Your task to perform on an android device: uninstall "Contacts" Image 0: 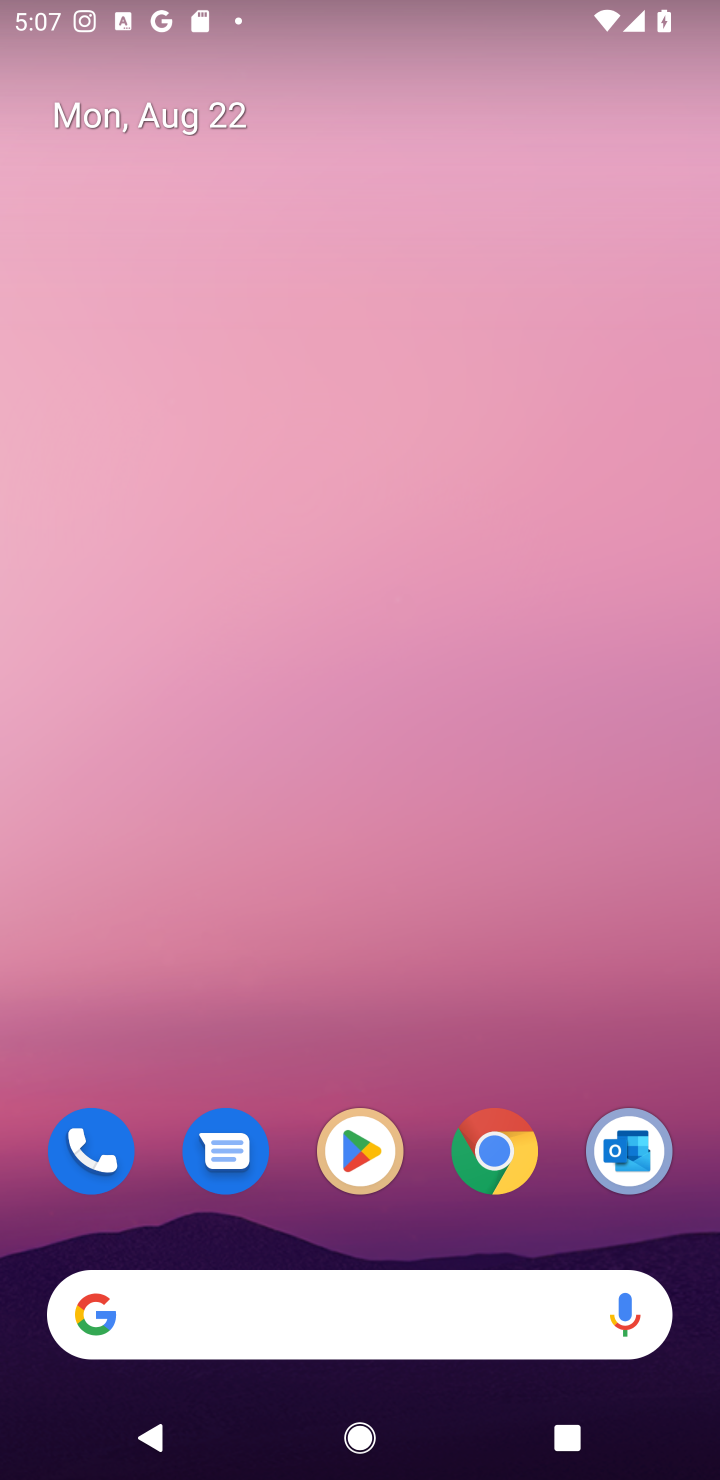
Step 0: press home button
Your task to perform on an android device: uninstall "Contacts" Image 1: 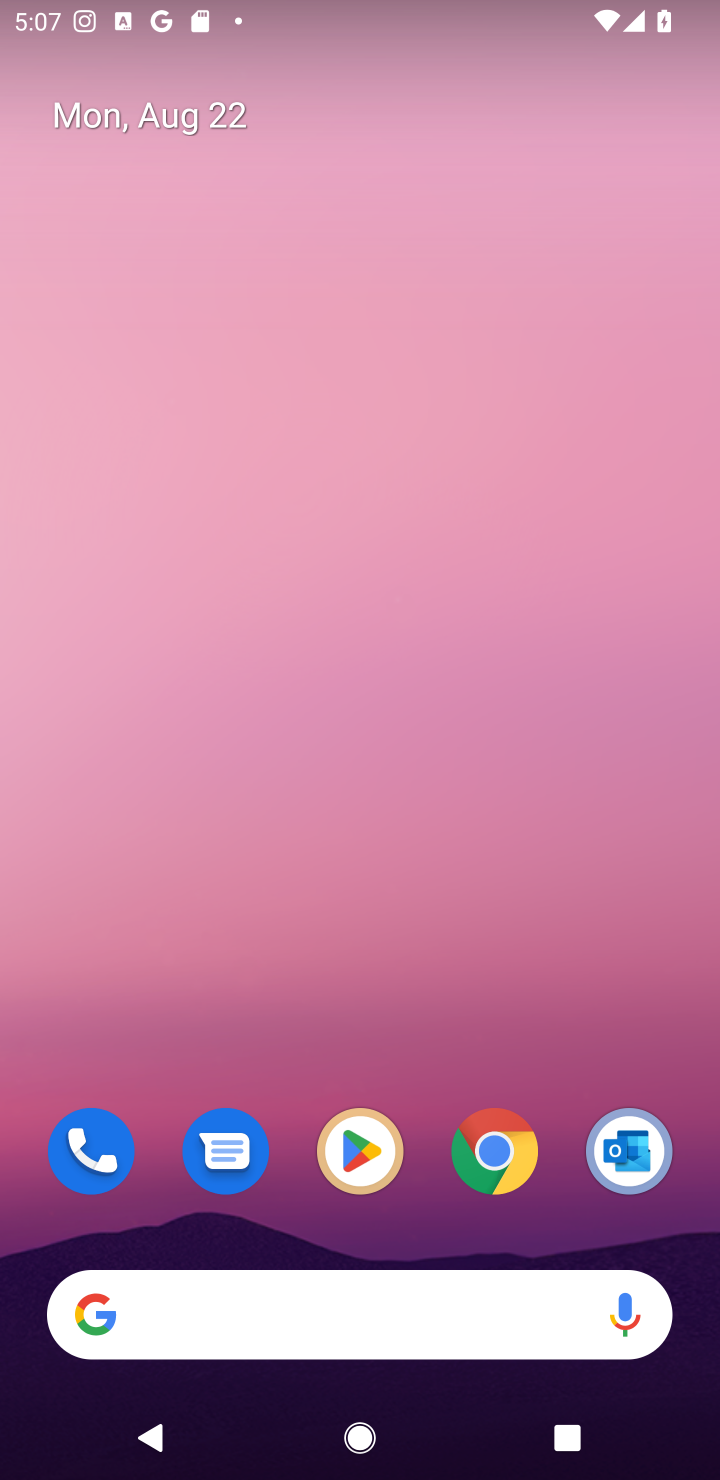
Step 1: click (348, 1143)
Your task to perform on an android device: uninstall "Contacts" Image 2: 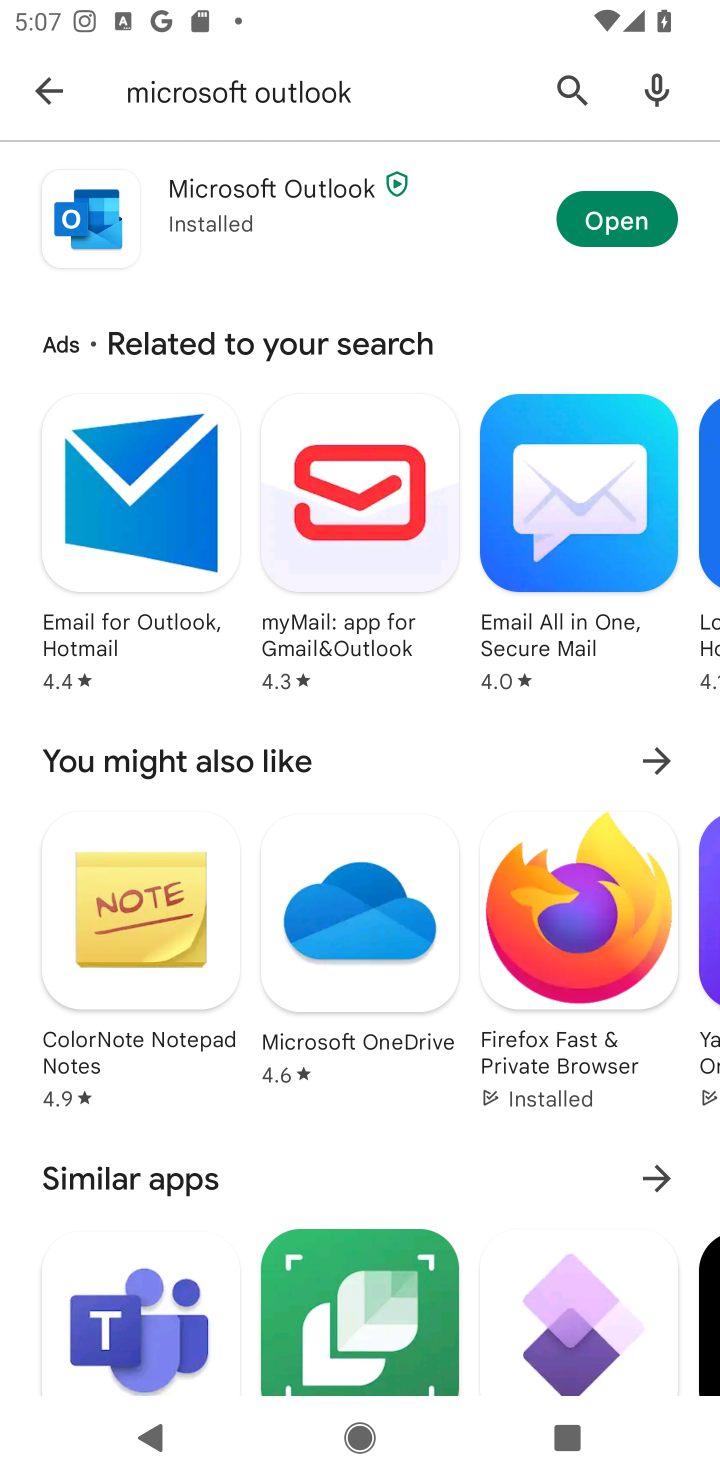
Step 2: click (578, 76)
Your task to perform on an android device: uninstall "Contacts" Image 3: 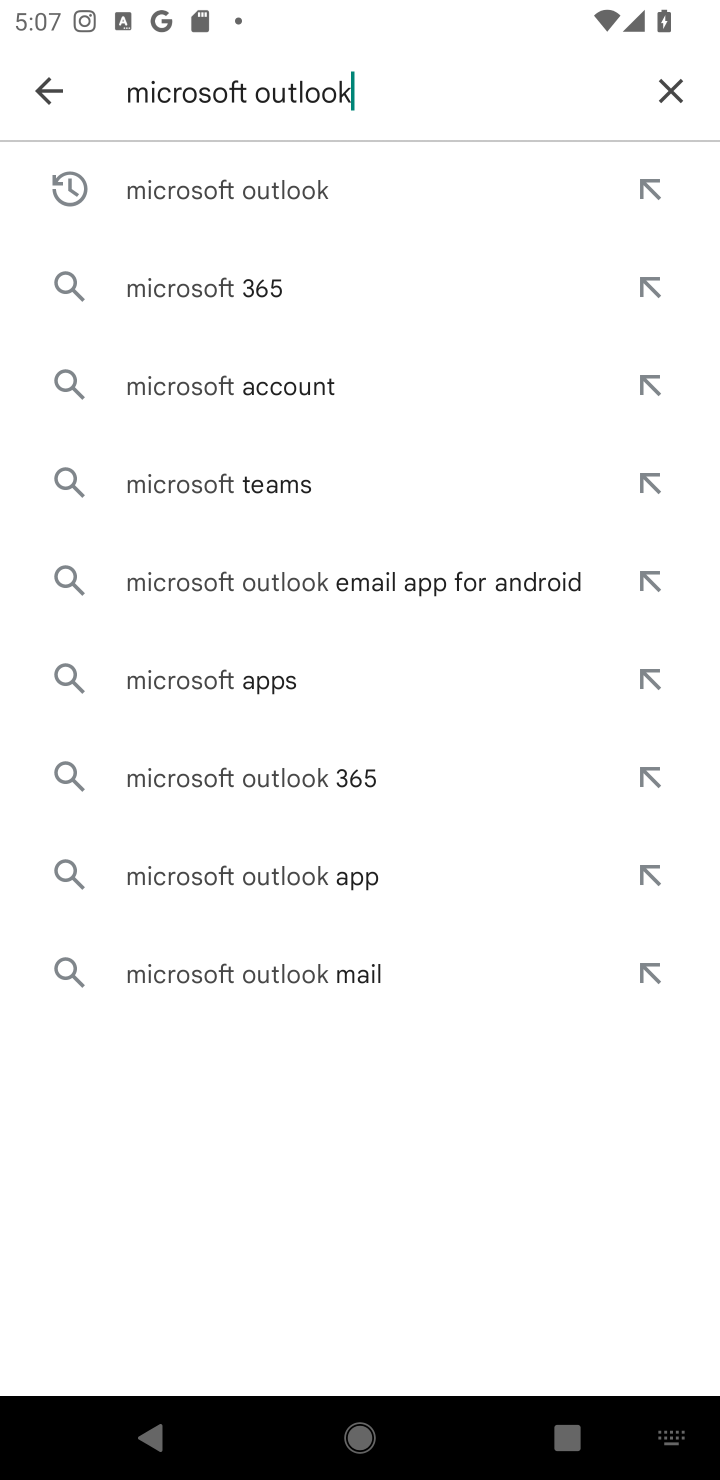
Step 3: click (667, 79)
Your task to perform on an android device: uninstall "Contacts" Image 4: 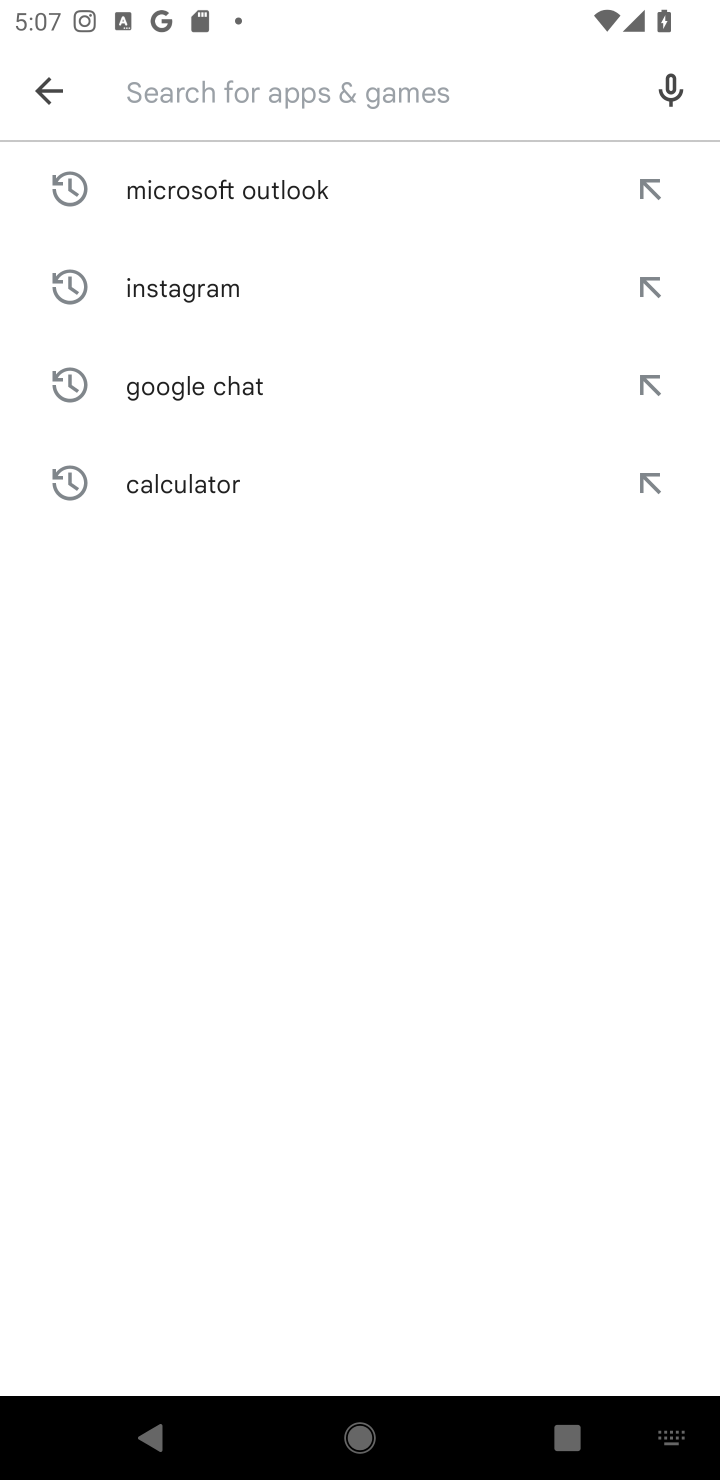
Step 4: type "Contacts"
Your task to perform on an android device: uninstall "Contacts" Image 5: 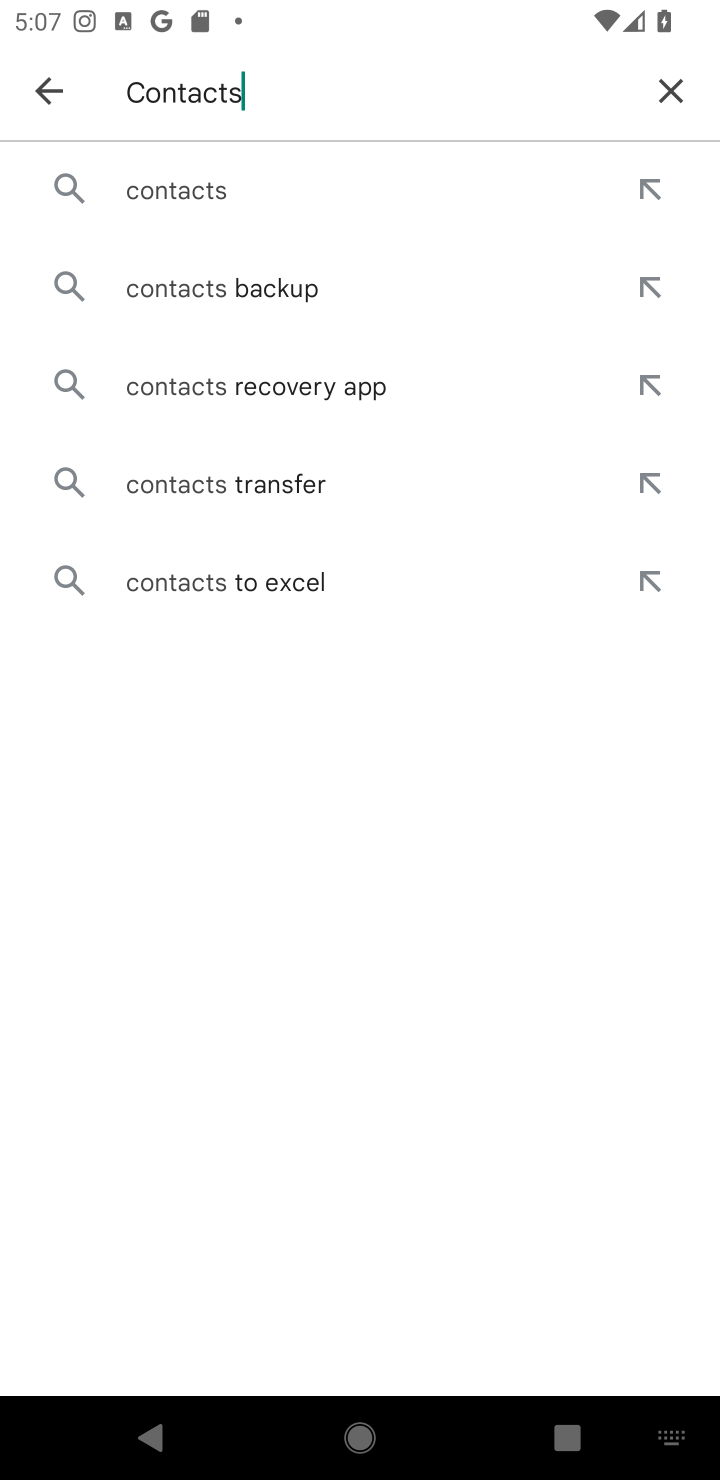
Step 5: click (226, 186)
Your task to perform on an android device: uninstall "Contacts" Image 6: 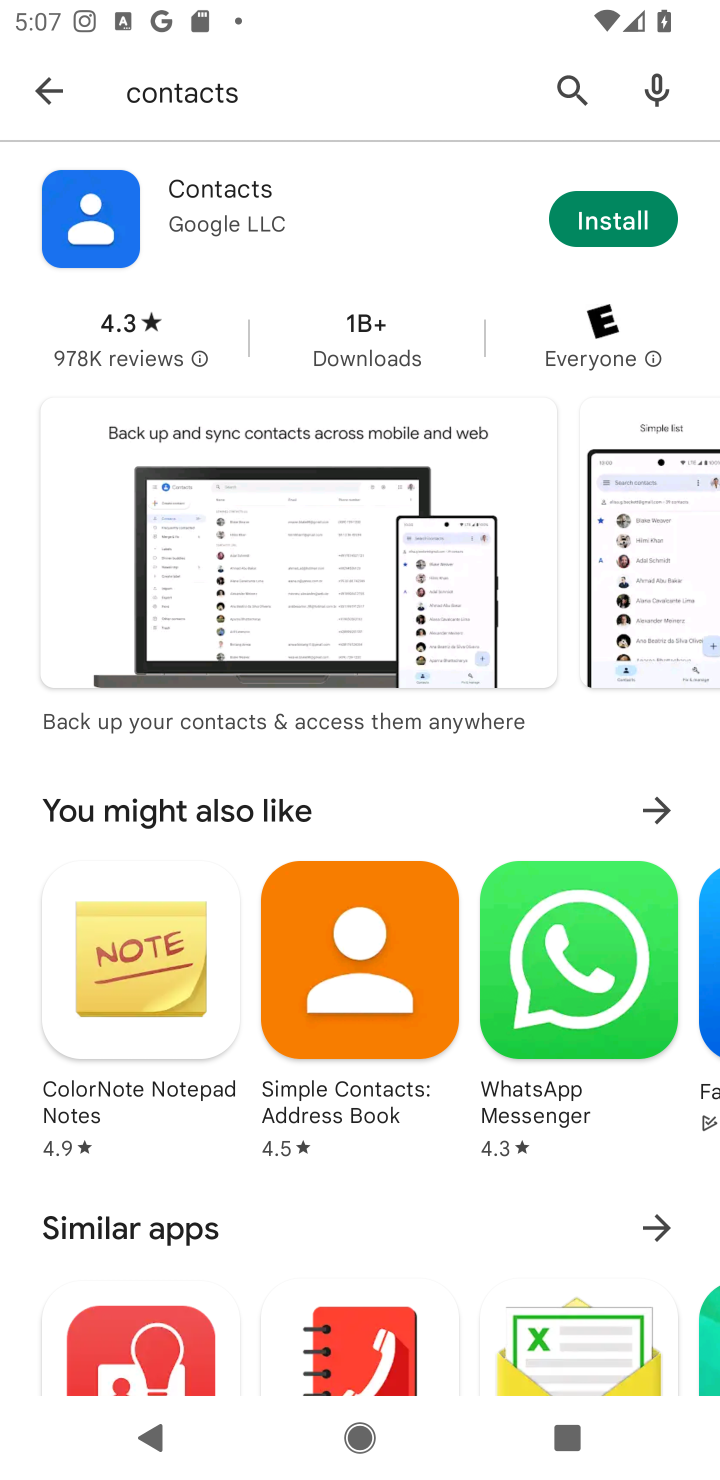
Step 6: click (193, 205)
Your task to perform on an android device: uninstall "Contacts" Image 7: 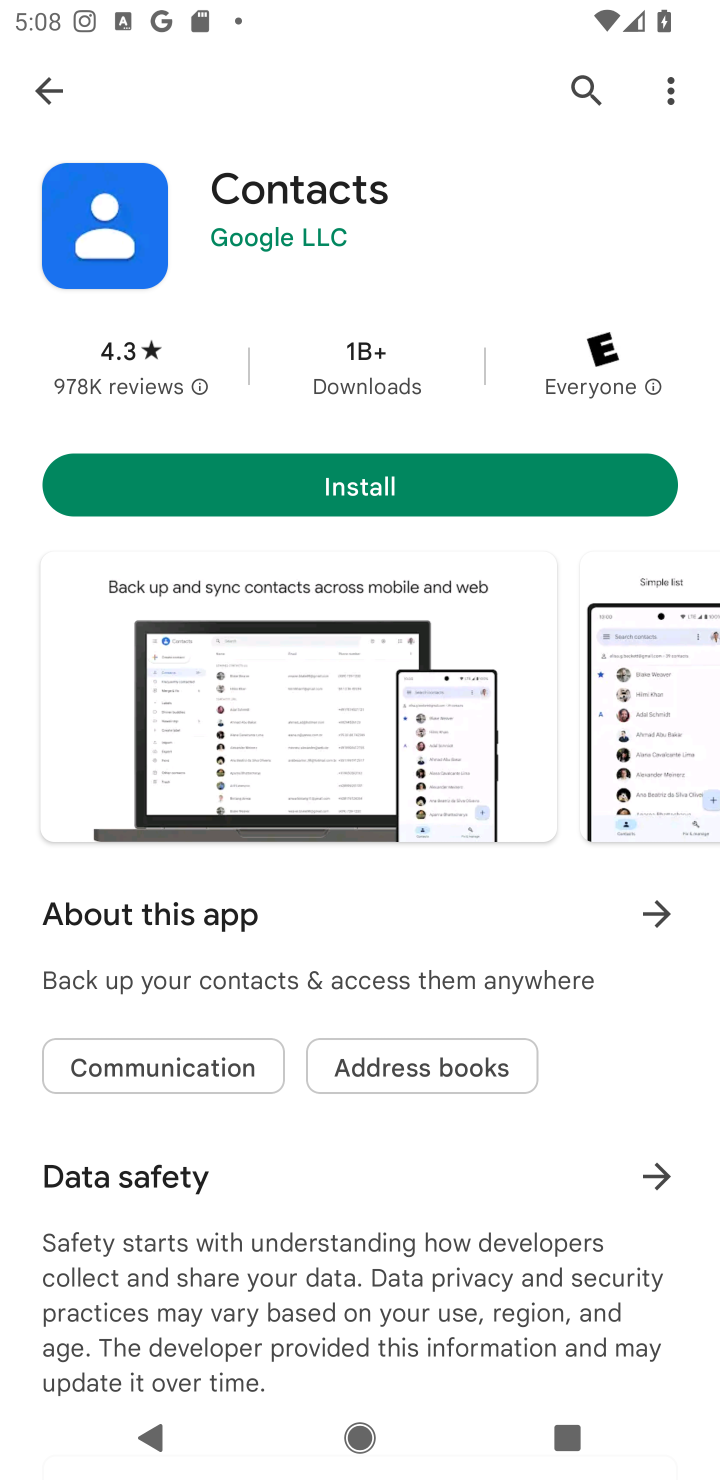
Step 7: task complete